Your task to perform on an android device: Open settings Image 0: 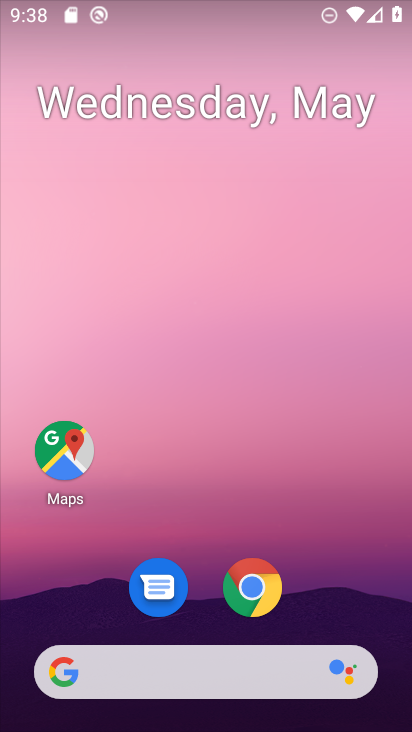
Step 0: drag from (213, 730) to (192, 127)
Your task to perform on an android device: Open settings Image 1: 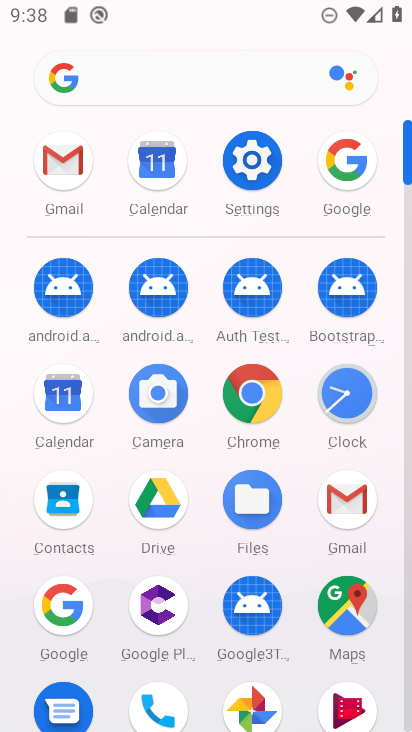
Step 1: click (250, 166)
Your task to perform on an android device: Open settings Image 2: 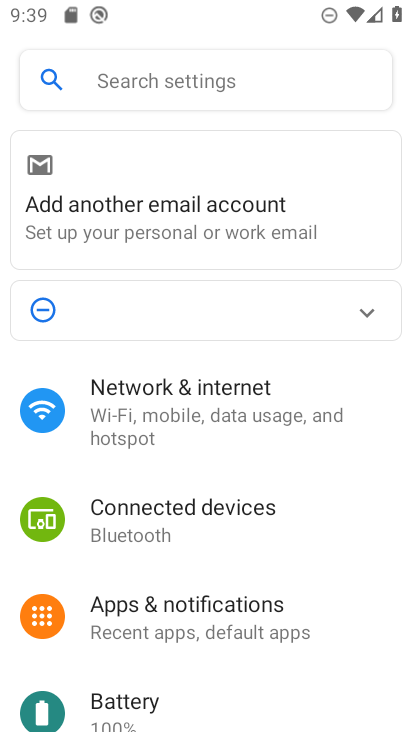
Step 2: task complete